Your task to perform on an android device: toggle priority inbox in the gmail app Image 0: 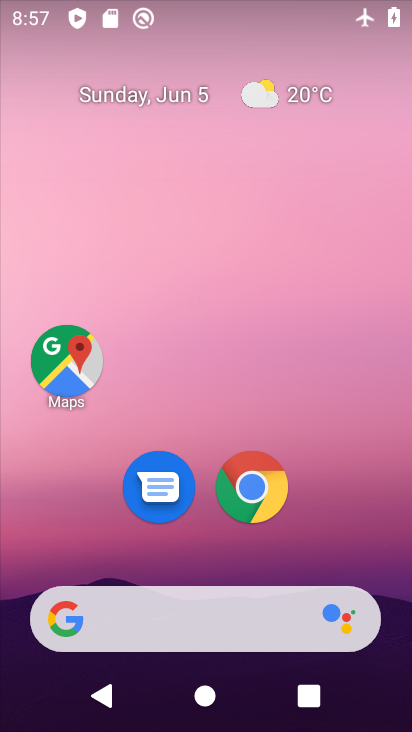
Step 0: drag from (272, 438) to (270, 317)
Your task to perform on an android device: toggle priority inbox in the gmail app Image 1: 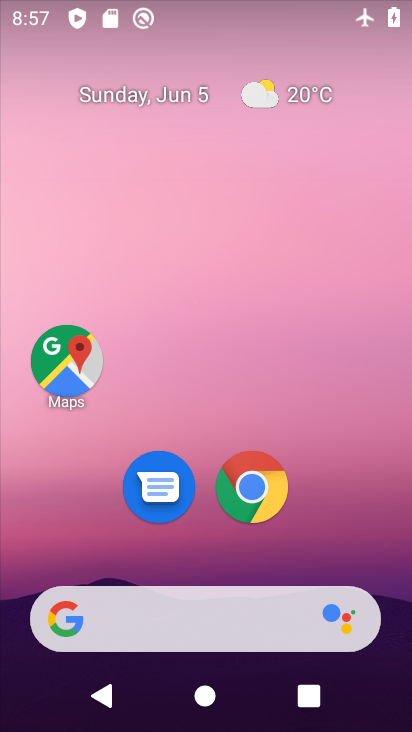
Step 1: drag from (222, 646) to (208, 250)
Your task to perform on an android device: toggle priority inbox in the gmail app Image 2: 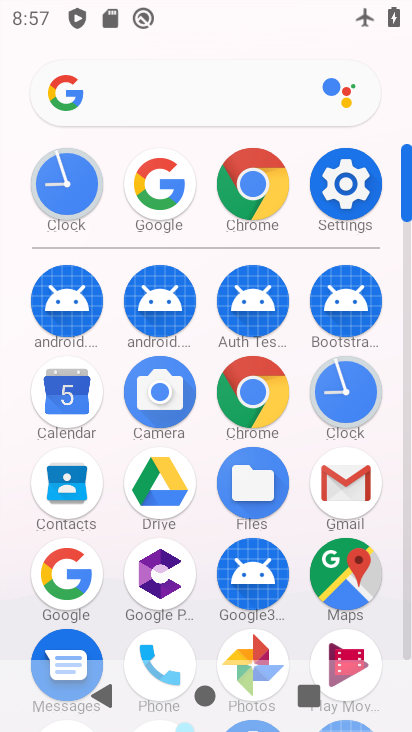
Step 2: click (356, 493)
Your task to perform on an android device: toggle priority inbox in the gmail app Image 3: 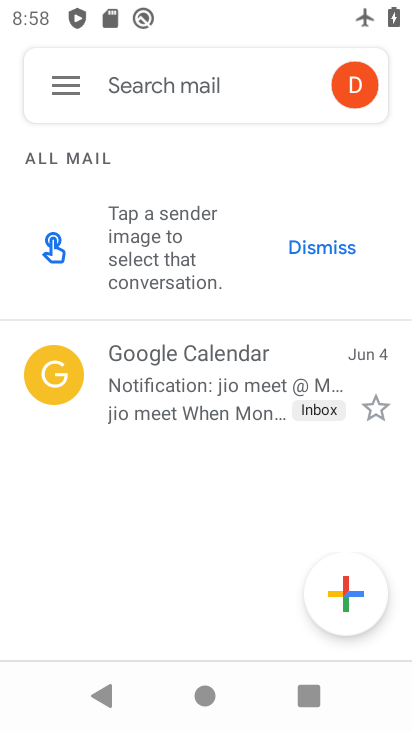
Step 3: click (58, 98)
Your task to perform on an android device: toggle priority inbox in the gmail app Image 4: 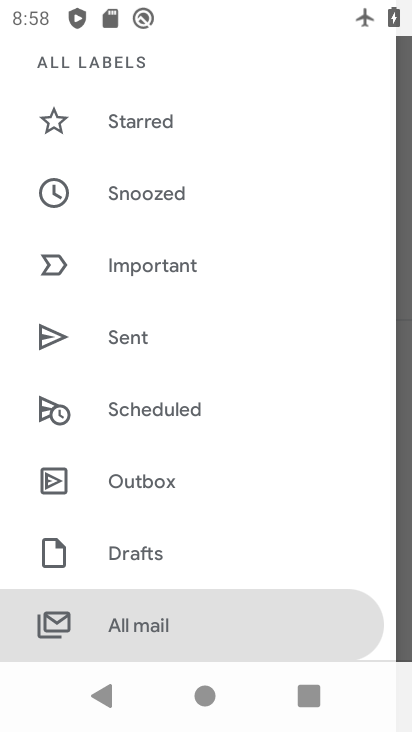
Step 4: drag from (142, 512) to (139, 401)
Your task to perform on an android device: toggle priority inbox in the gmail app Image 5: 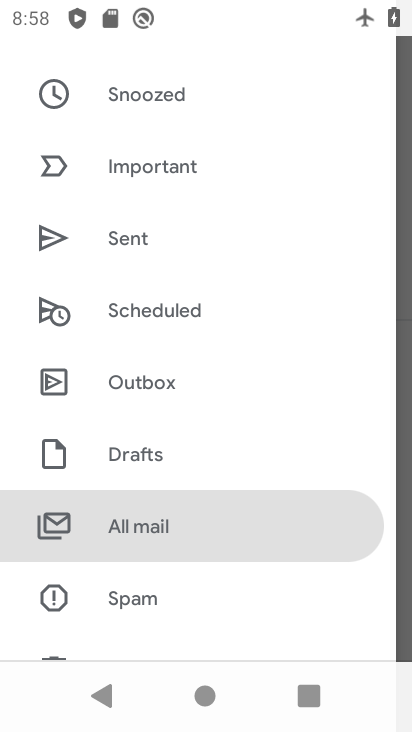
Step 5: drag from (176, 508) to (199, 175)
Your task to perform on an android device: toggle priority inbox in the gmail app Image 6: 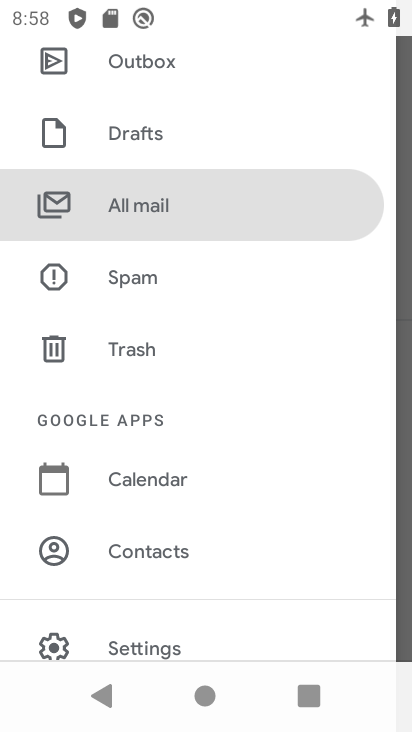
Step 6: click (189, 645)
Your task to perform on an android device: toggle priority inbox in the gmail app Image 7: 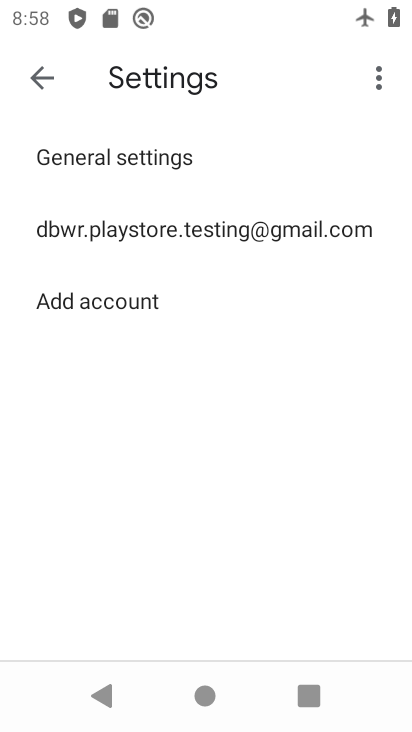
Step 7: click (182, 223)
Your task to perform on an android device: toggle priority inbox in the gmail app Image 8: 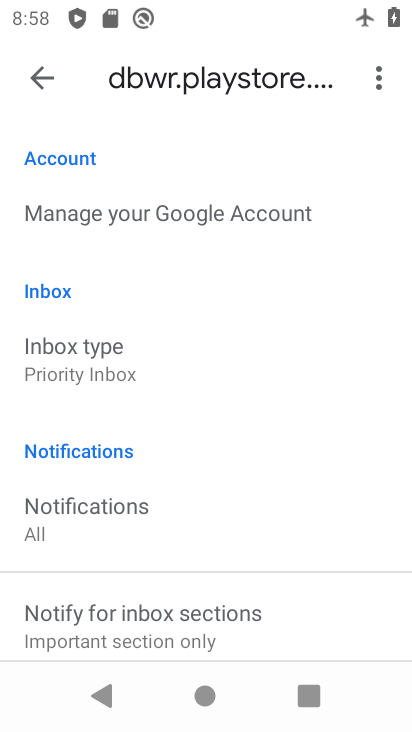
Step 8: click (115, 368)
Your task to perform on an android device: toggle priority inbox in the gmail app Image 9: 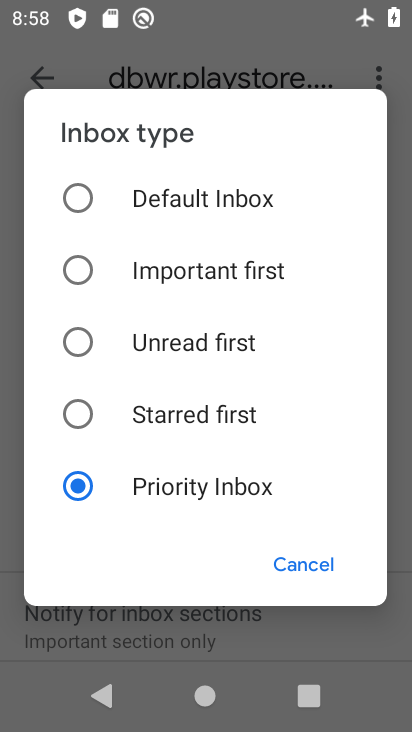
Step 9: click (73, 207)
Your task to perform on an android device: toggle priority inbox in the gmail app Image 10: 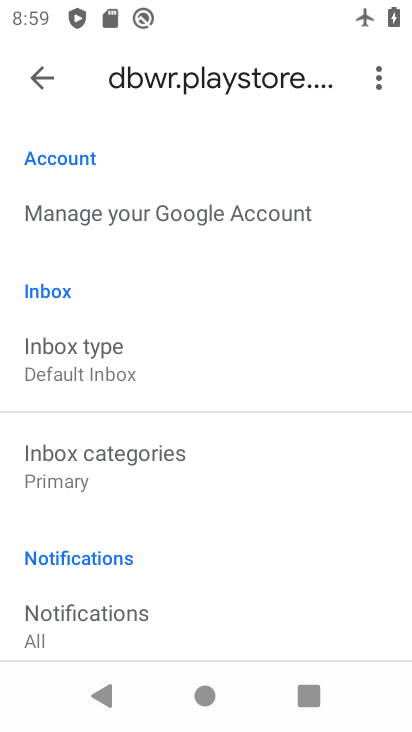
Step 10: task complete